Your task to perform on an android device: turn on bluetooth scan Image 0: 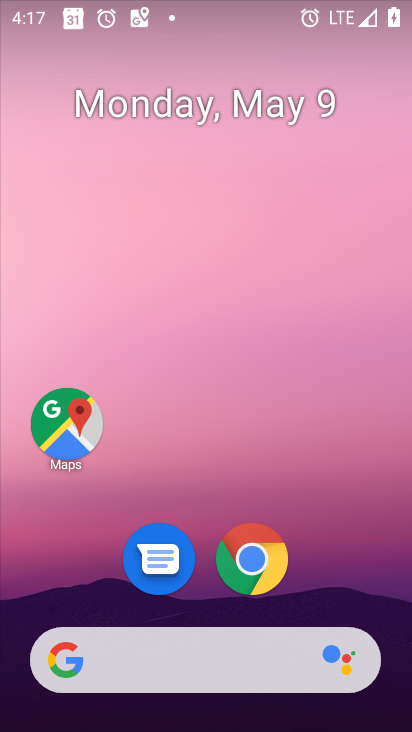
Step 0: drag from (221, 725) to (235, 231)
Your task to perform on an android device: turn on bluetooth scan Image 1: 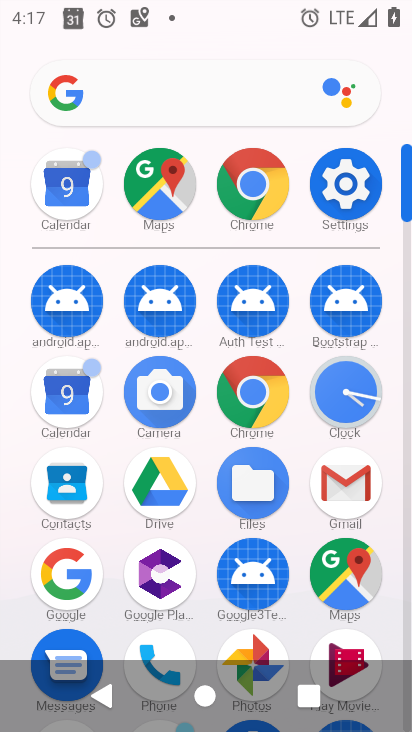
Step 1: click (351, 185)
Your task to perform on an android device: turn on bluetooth scan Image 2: 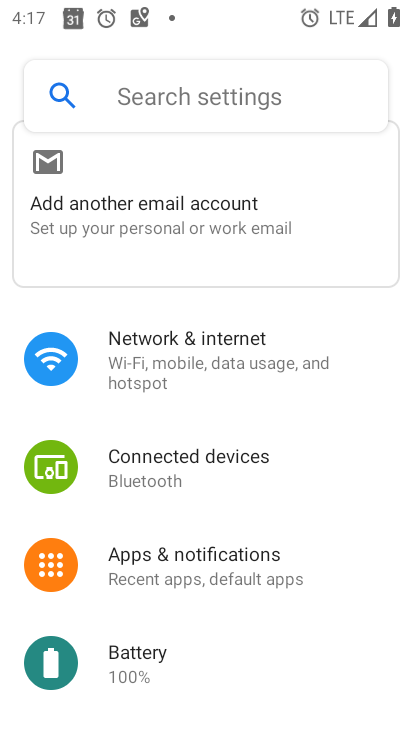
Step 2: drag from (203, 673) to (188, 406)
Your task to perform on an android device: turn on bluetooth scan Image 3: 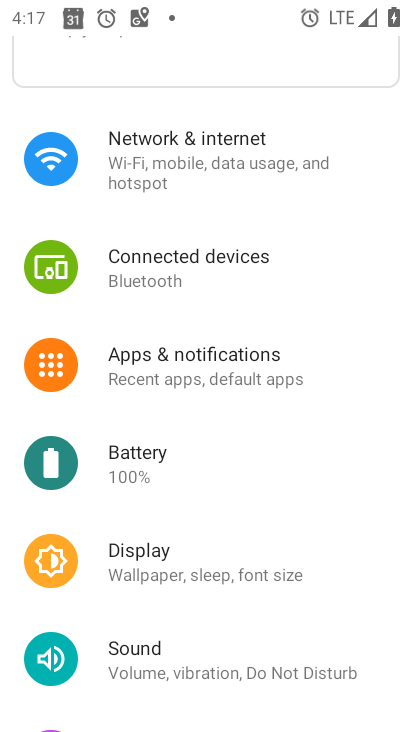
Step 3: drag from (186, 694) to (193, 384)
Your task to perform on an android device: turn on bluetooth scan Image 4: 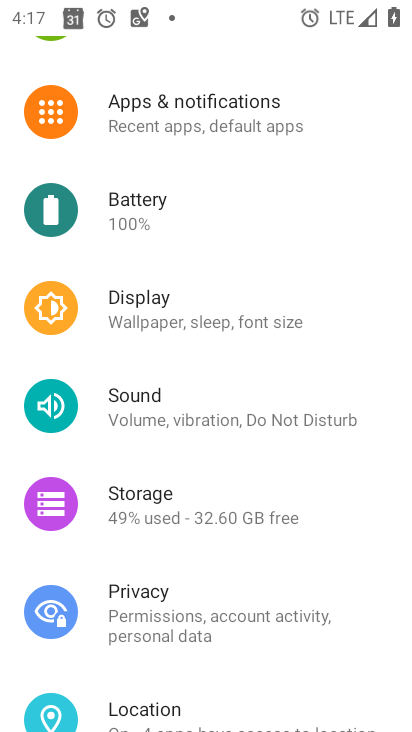
Step 4: drag from (242, 117) to (256, 572)
Your task to perform on an android device: turn on bluetooth scan Image 5: 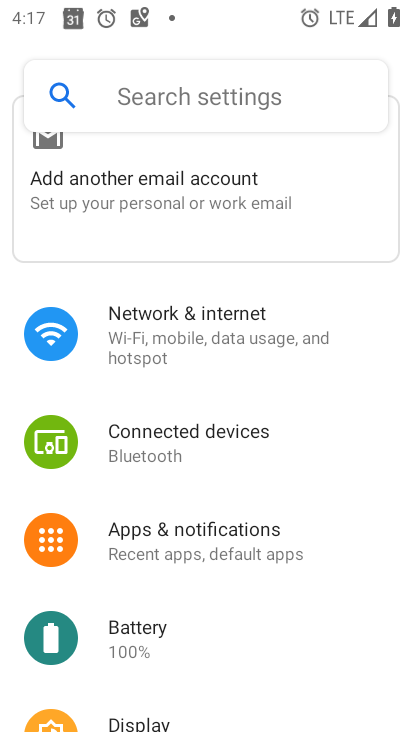
Step 5: drag from (214, 696) to (206, 345)
Your task to perform on an android device: turn on bluetooth scan Image 6: 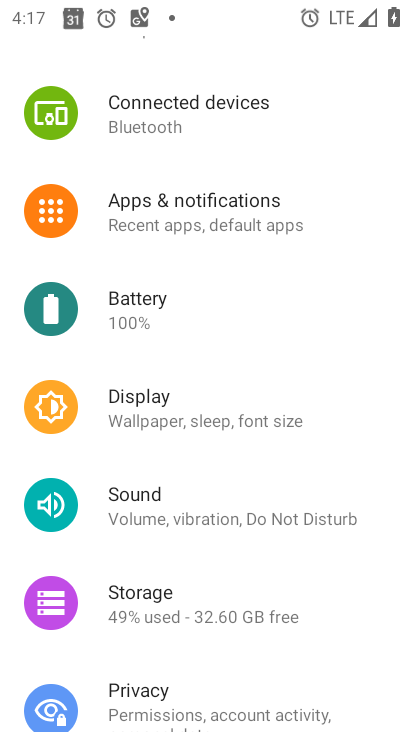
Step 6: drag from (203, 674) to (211, 357)
Your task to perform on an android device: turn on bluetooth scan Image 7: 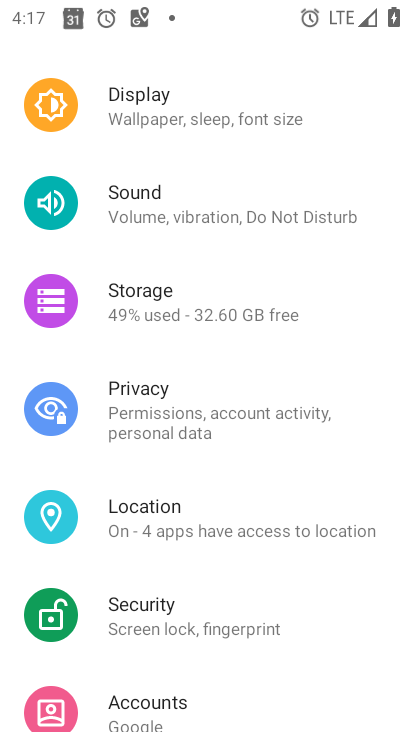
Step 7: click (166, 513)
Your task to perform on an android device: turn on bluetooth scan Image 8: 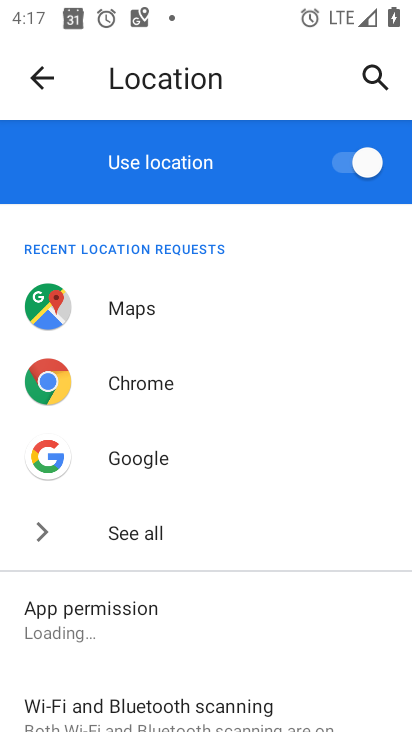
Step 8: drag from (192, 674) to (204, 392)
Your task to perform on an android device: turn on bluetooth scan Image 9: 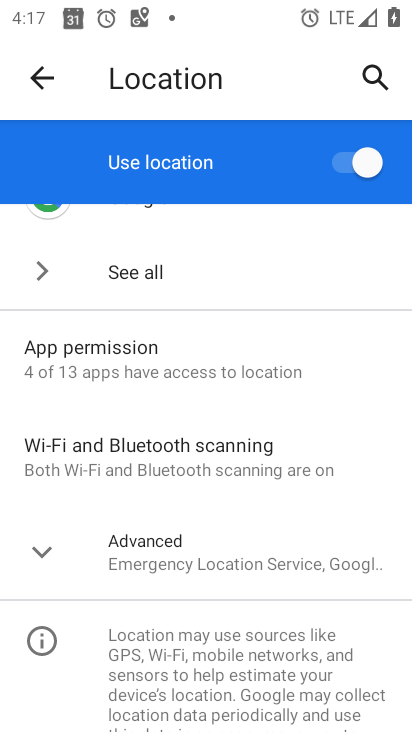
Step 9: click (170, 455)
Your task to perform on an android device: turn on bluetooth scan Image 10: 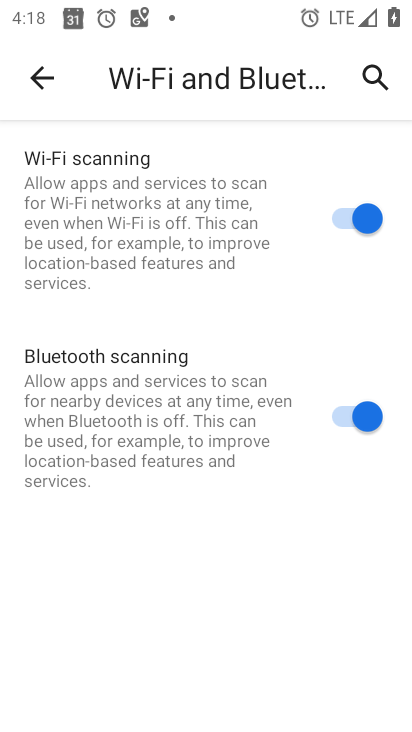
Step 10: task complete